Your task to perform on an android device: Turn off the flashlight Image 0: 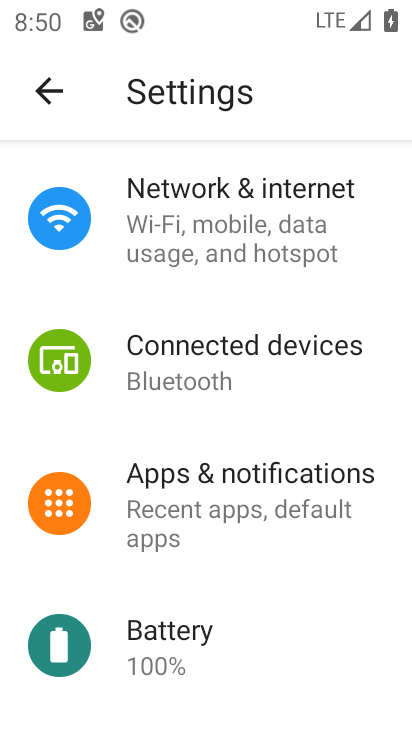
Step 0: task impossible